Your task to perform on an android device: What's the weather today? Image 0: 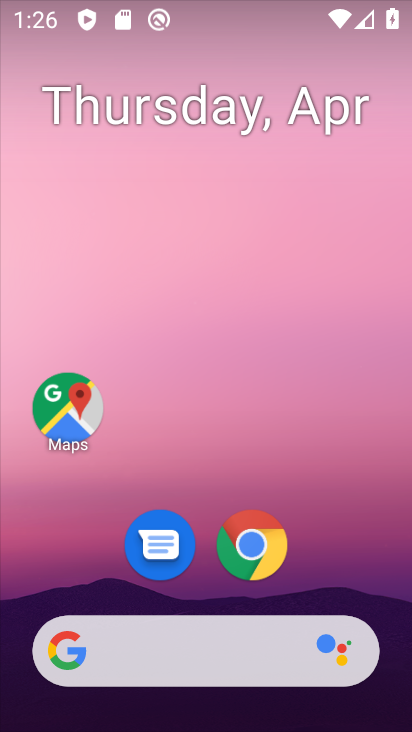
Step 0: drag from (46, 189) to (386, 204)
Your task to perform on an android device: What's the weather today? Image 1: 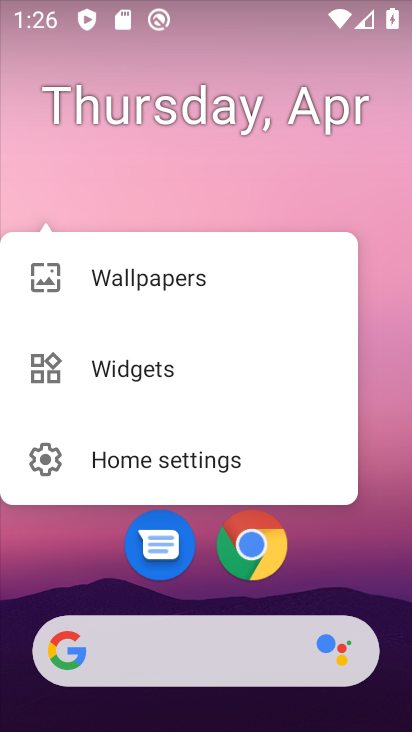
Step 1: drag from (34, 178) to (409, 235)
Your task to perform on an android device: What's the weather today? Image 2: 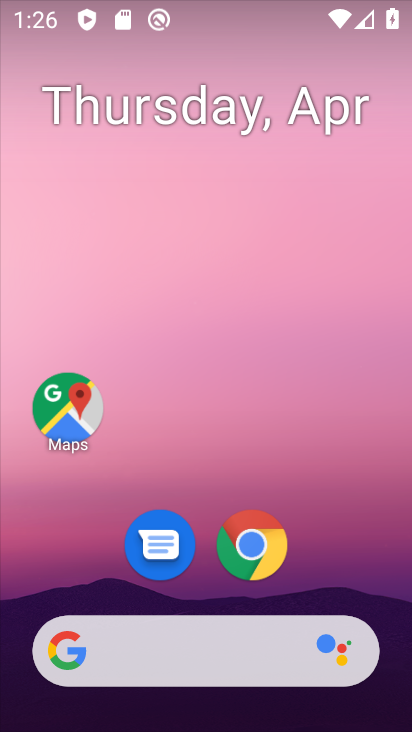
Step 2: drag from (35, 302) to (408, 292)
Your task to perform on an android device: What's the weather today? Image 3: 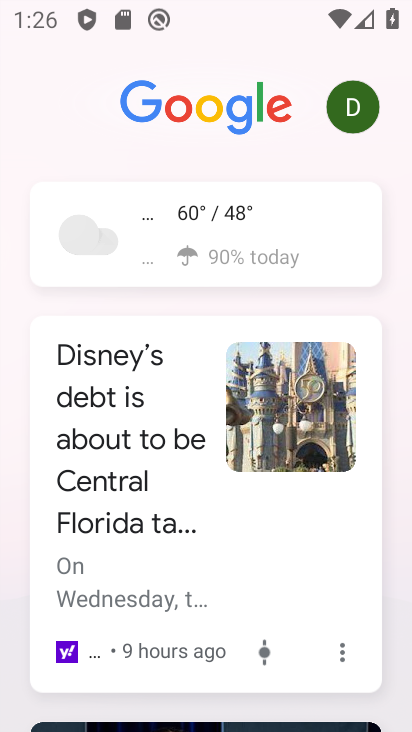
Step 3: click (223, 227)
Your task to perform on an android device: What's the weather today? Image 4: 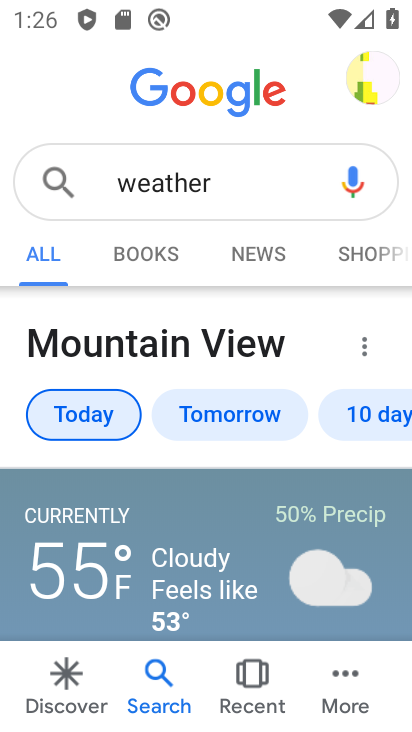
Step 4: task complete